Your task to perform on an android device: Go to Wikipedia Image 0: 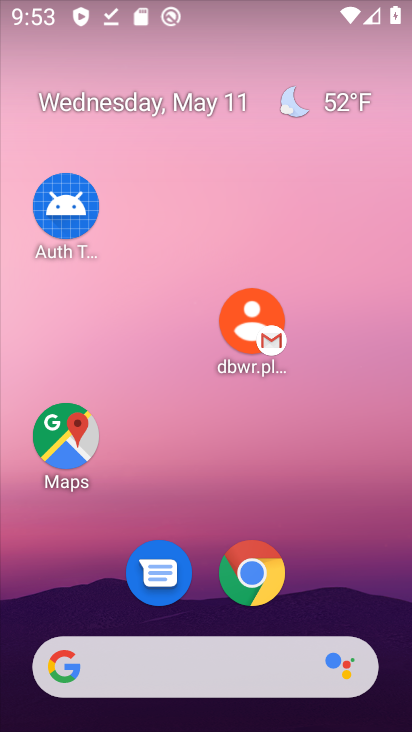
Step 0: drag from (399, 584) to (102, 66)
Your task to perform on an android device: Go to Wikipedia Image 1: 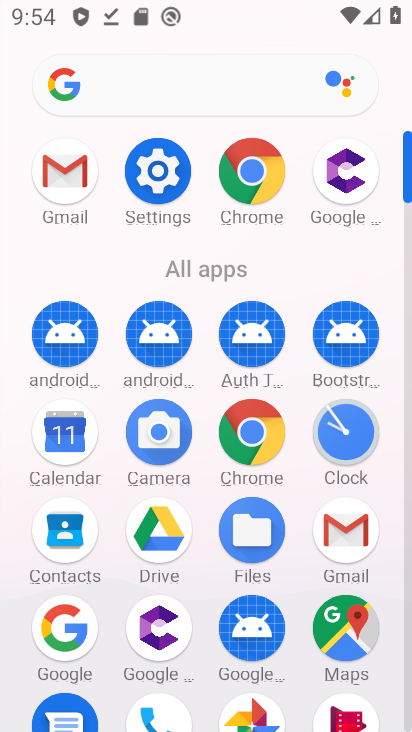
Step 1: click (167, 183)
Your task to perform on an android device: Go to Wikipedia Image 2: 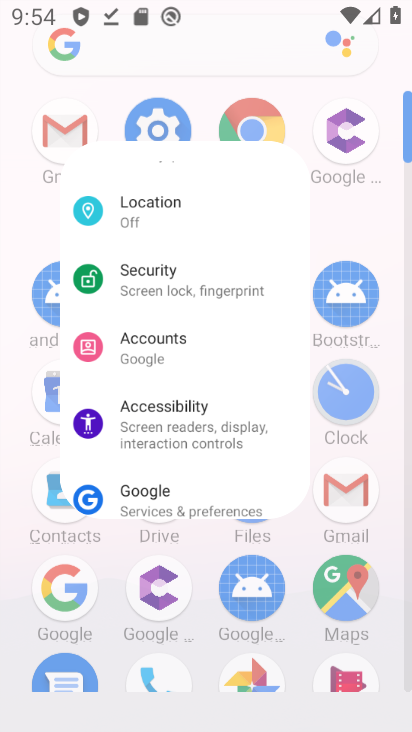
Step 2: click (166, 182)
Your task to perform on an android device: Go to Wikipedia Image 3: 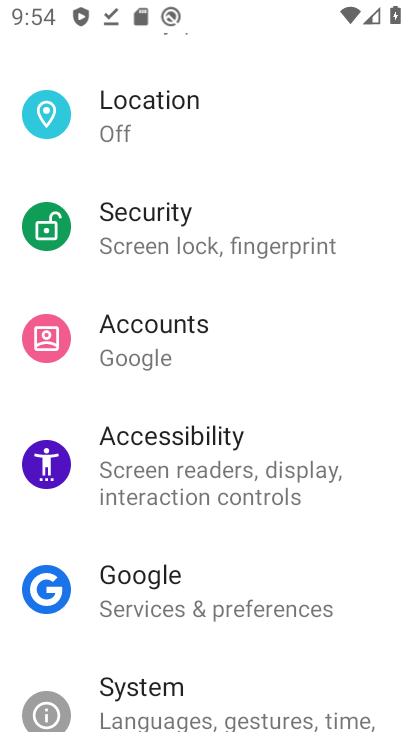
Step 3: press back button
Your task to perform on an android device: Go to Wikipedia Image 4: 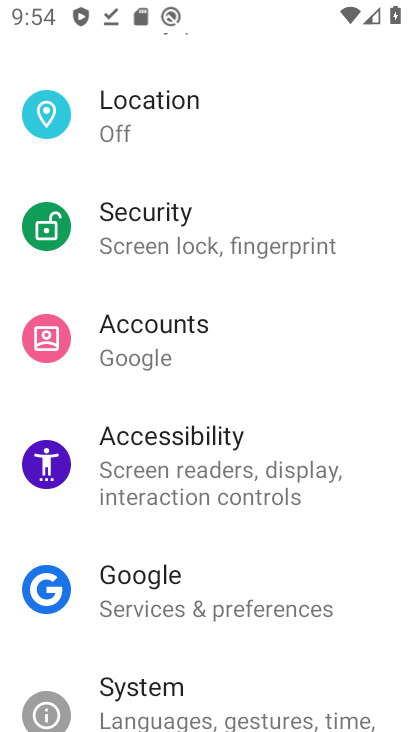
Step 4: press back button
Your task to perform on an android device: Go to Wikipedia Image 5: 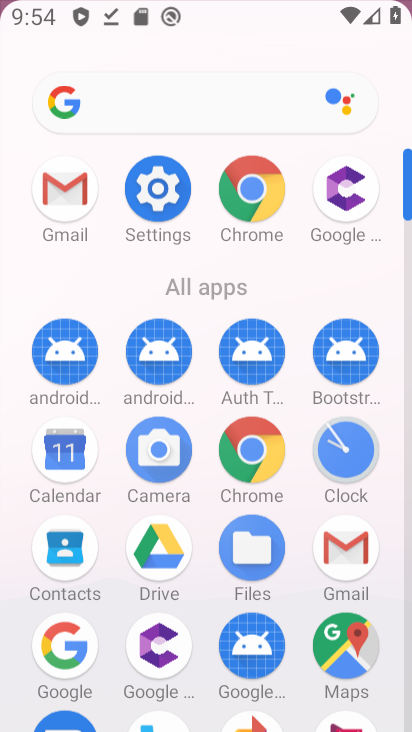
Step 5: press back button
Your task to perform on an android device: Go to Wikipedia Image 6: 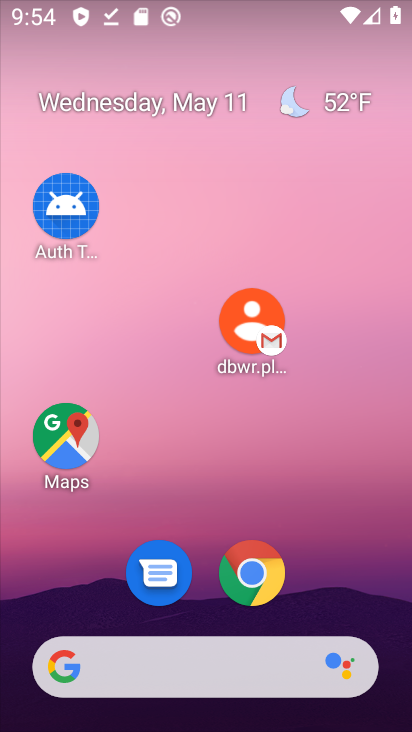
Step 6: drag from (335, 538) to (192, 22)
Your task to perform on an android device: Go to Wikipedia Image 7: 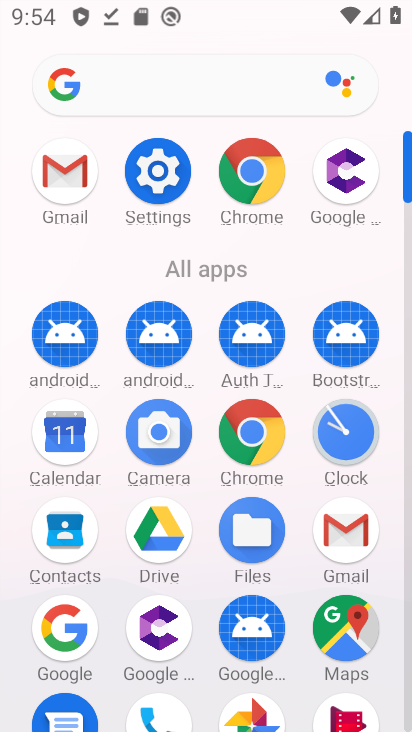
Step 7: click (259, 176)
Your task to perform on an android device: Go to Wikipedia Image 8: 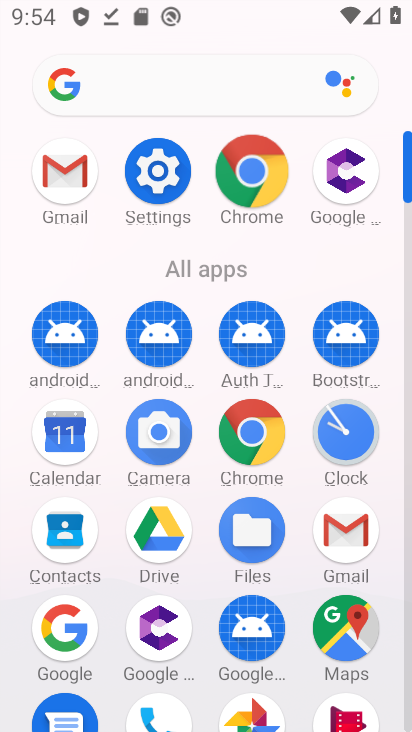
Step 8: click (259, 176)
Your task to perform on an android device: Go to Wikipedia Image 9: 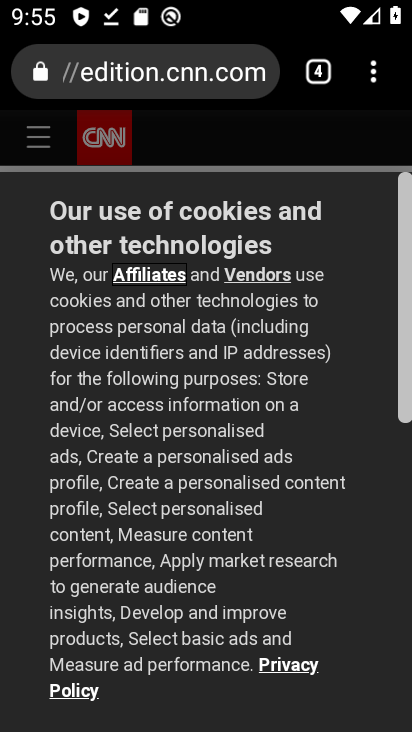
Step 9: drag from (371, 72) to (115, 133)
Your task to perform on an android device: Go to Wikipedia Image 10: 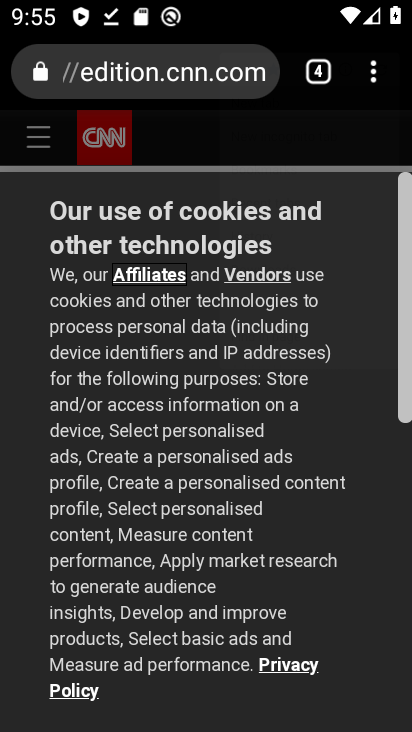
Step 10: click (148, 138)
Your task to perform on an android device: Go to Wikipedia Image 11: 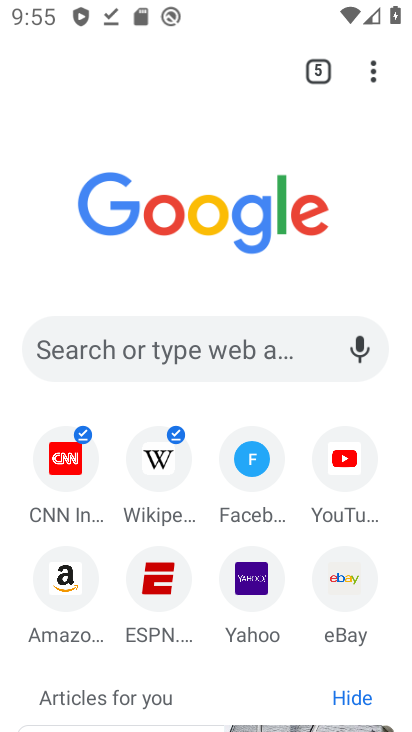
Step 11: click (165, 445)
Your task to perform on an android device: Go to Wikipedia Image 12: 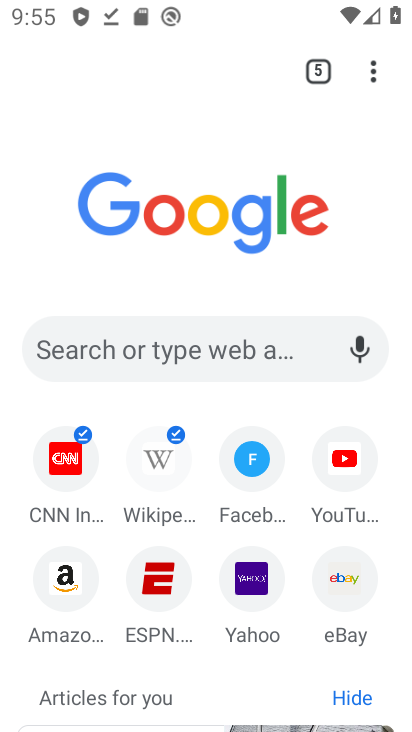
Step 12: click (163, 447)
Your task to perform on an android device: Go to Wikipedia Image 13: 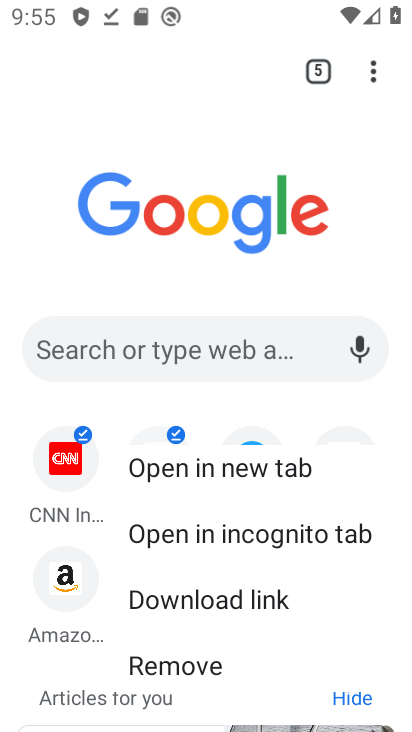
Step 13: click (163, 448)
Your task to perform on an android device: Go to Wikipedia Image 14: 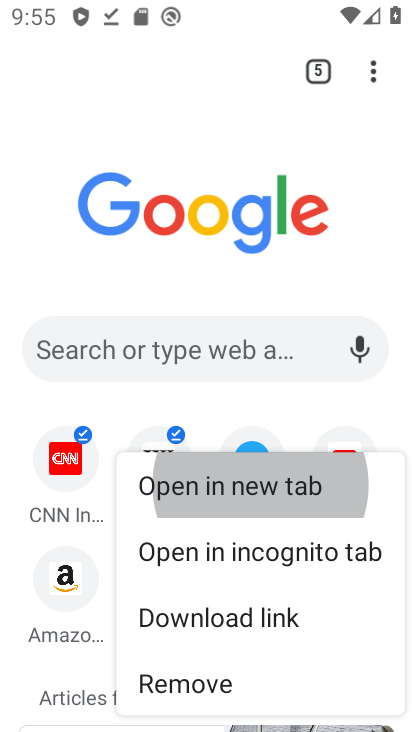
Step 14: click (163, 448)
Your task to perform on an android device: Go to Wikipedia Image 15: 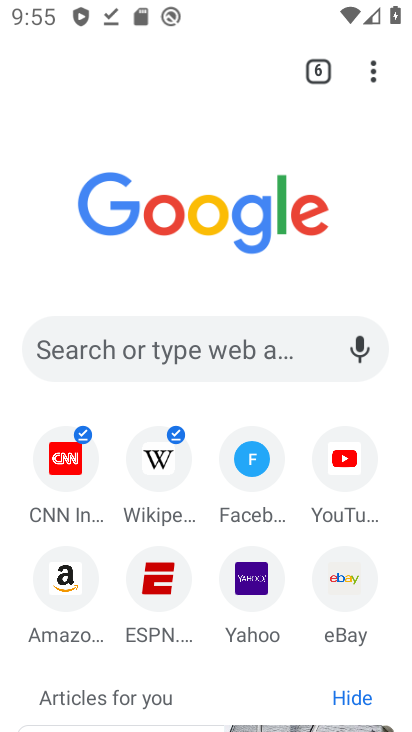
Step 15: click (164, 463)
Your task to perform on an android device: Go to Wikipedia Image 16: 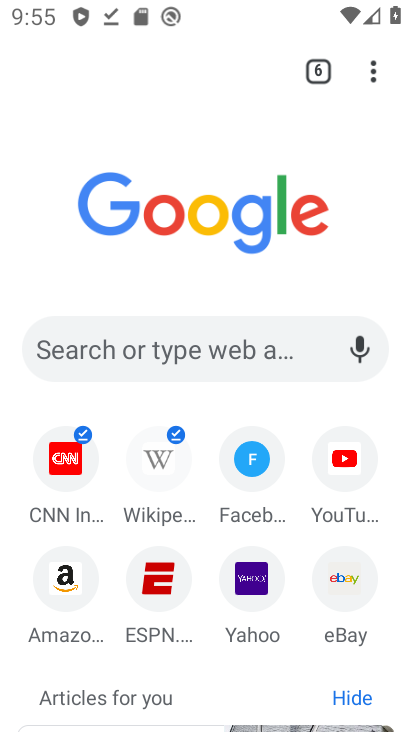
Step 16: click (162, 461)
Your task to perform on an android device: Go to Wikipedia Image 17: 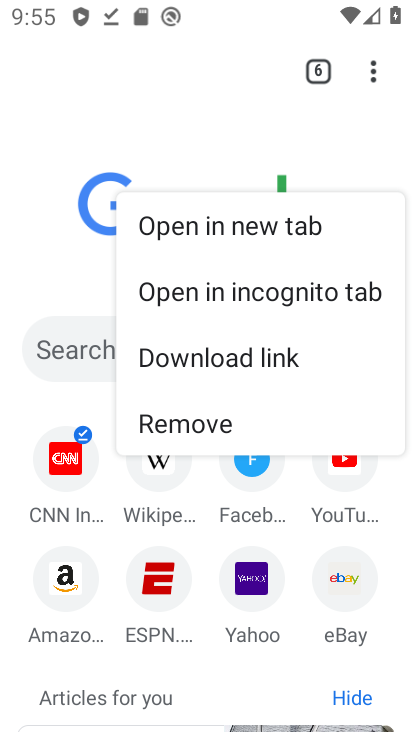
Step 17: click (212, 229)
Your task to perform on an android device: Go to Wikipedia Image 18: 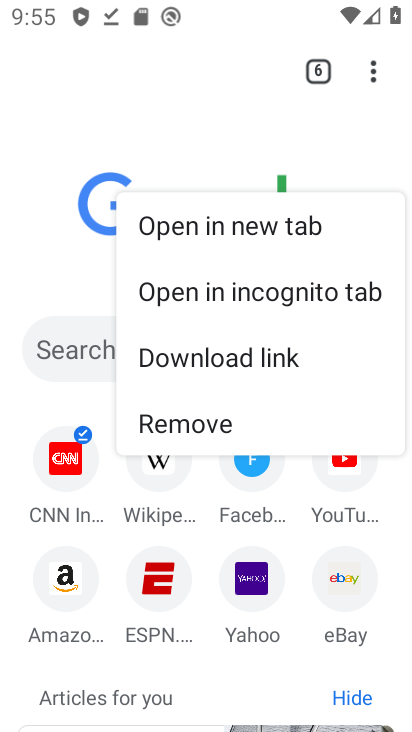
Step 18: click (212, 229)
Your task to perform on an android device: Go to Wikipedia Image 19: 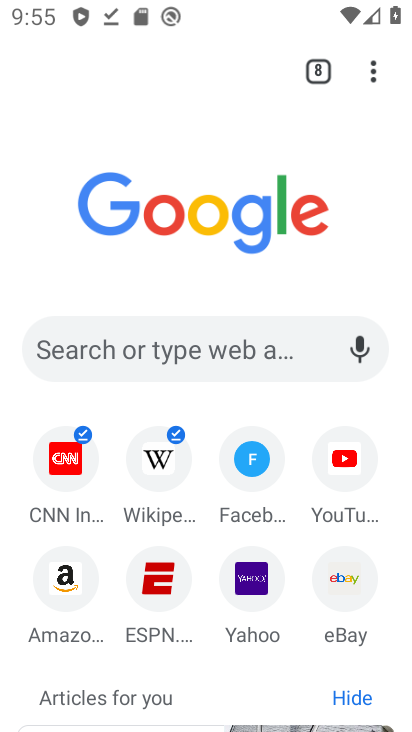
Step 19: click (169, 452)
Your task to perform on an android device: Go to Wikipedia Image 20: 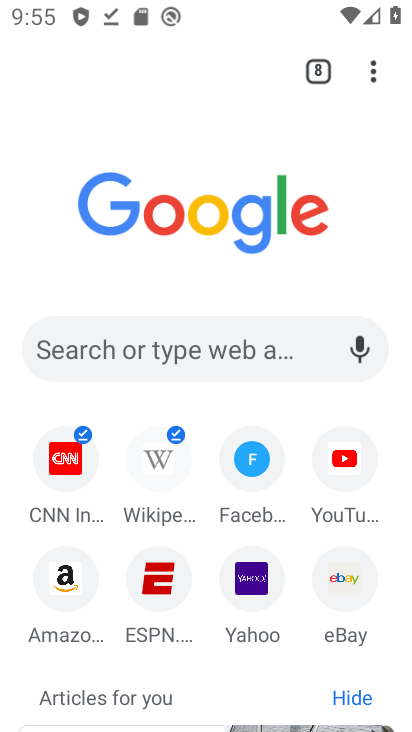
Step 20: click (169, 452)
Your task to perform on an android device: Go to Wikipedia Image 21: 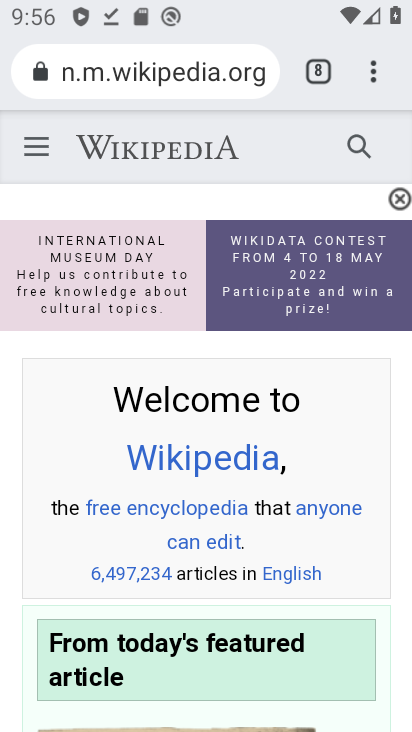
Step 21: task complete